Your task to perform on an android device: Is it going to rain this weekend? Image 0: 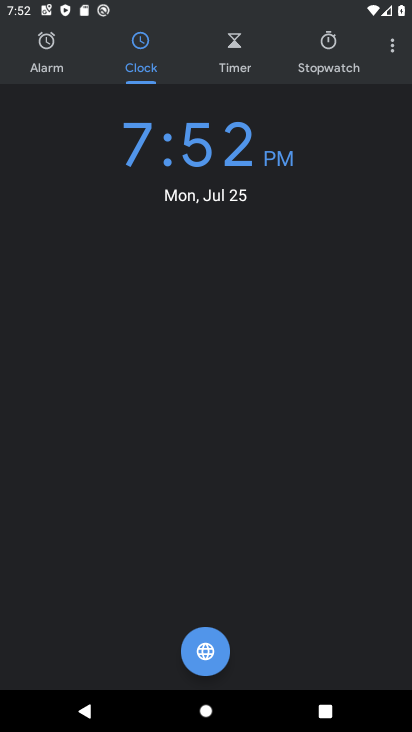
Step 0: press home button
Your task to perform on an android device: Is it going to rain this weekend? Image 1: 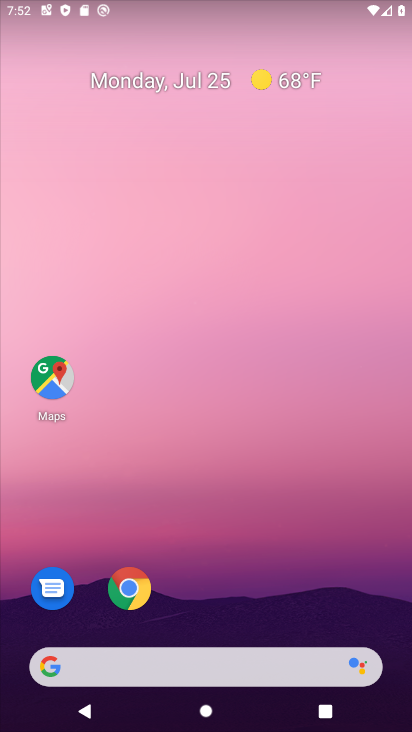
Step 1: click (247, 670)
Your task to perform on an android device: Is it going to rain this weekend? Image 2: 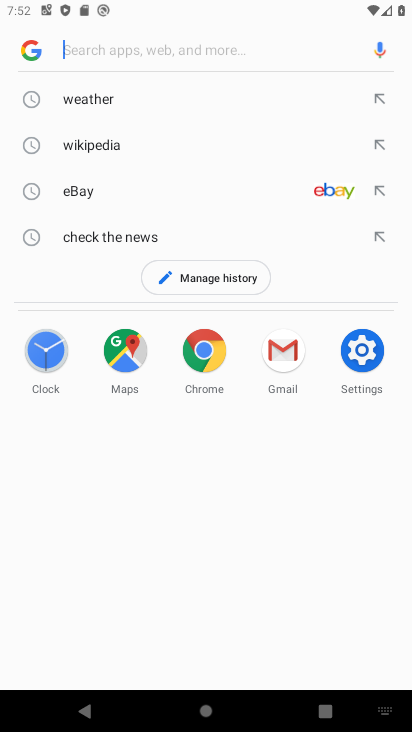
Step 2: click (119, 99)
Your task to perform on an android device: Is it going to rain this weekend? Image 3: 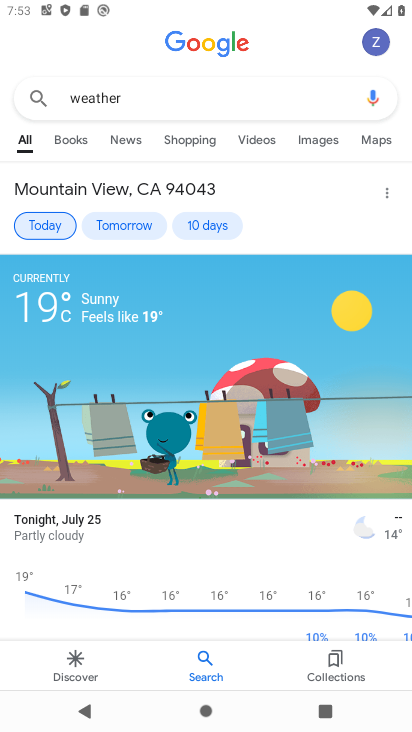
Step 3: click (213, 219)
Your task to perform on an android device: Is it going to rain this weekend? Image 4: 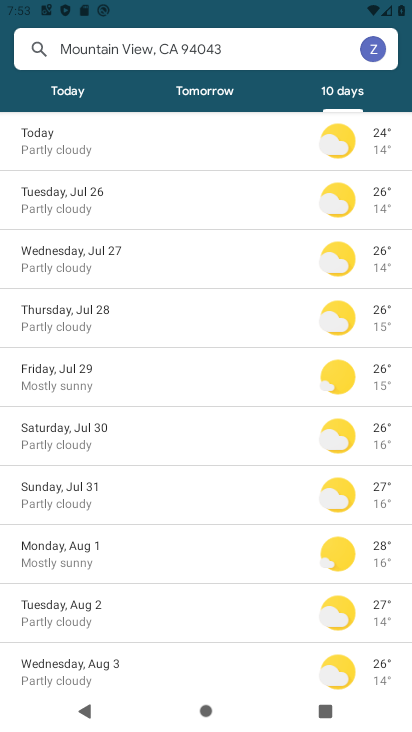
Step 4: drag from (214, 399) to (229, 298)
Your task to perform on an android device: Is it going to rain this weekend? Image 5: 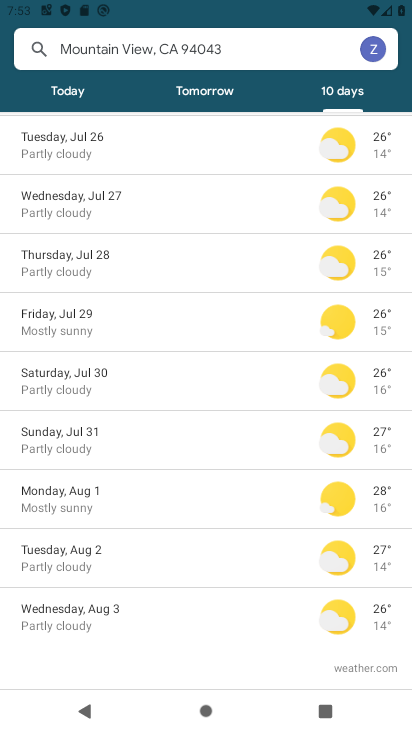
Step 5: click (189, 372)
Your task to perform on an android device: Is it going to rain this weekend? Image 6: 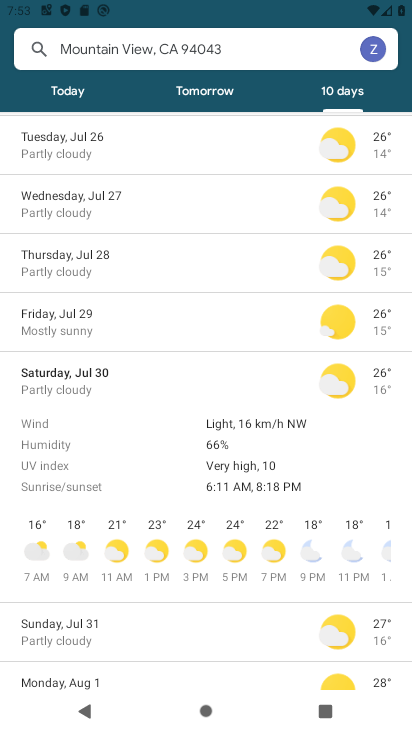
Step 6: task complete